Your task to perform on an android device: turn on sleep mode Image 0: 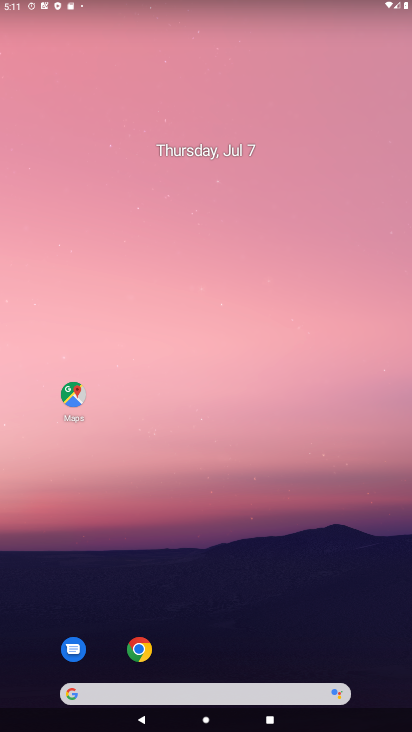
Step 0: drag from (382, 647) to (133, 5)
Your task to perform on an android device: turn on sleep mode Image 1: 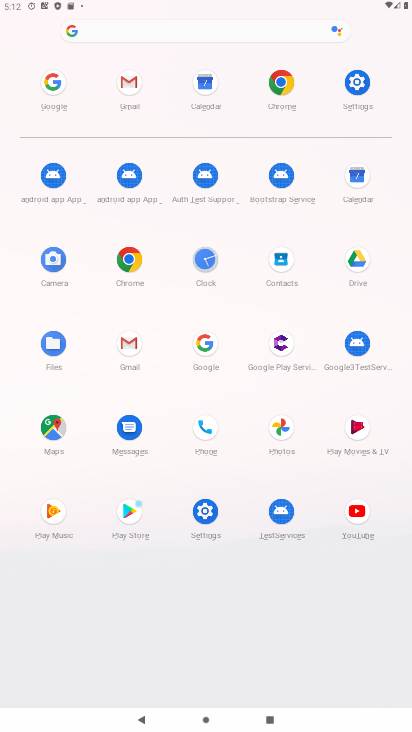
Step 1: click (353, 82)
Your task to perform on an android device: turn on sleep mode Image 2: 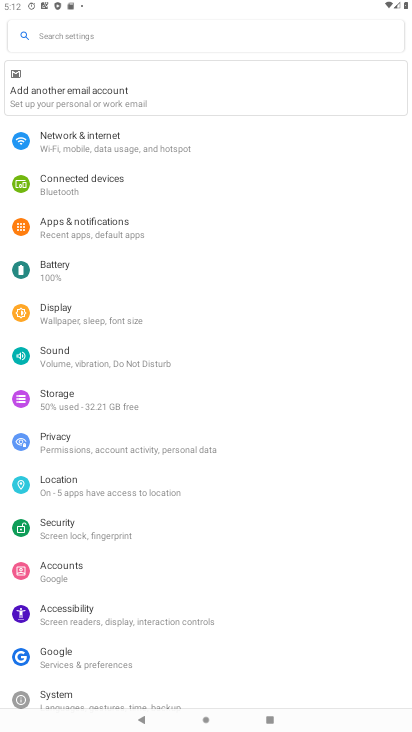
Step 2: task complete